Your task to perform on an android device: turn on notifications settings in the gmail app Image 0: 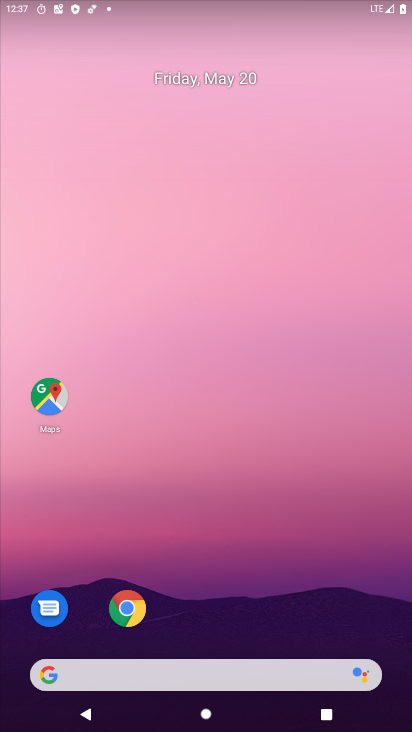
Step 0: drag from (375, 591) to (351, 158)
Your task to perform on an android device: turn on notifications settings in the gmail app Image 1: 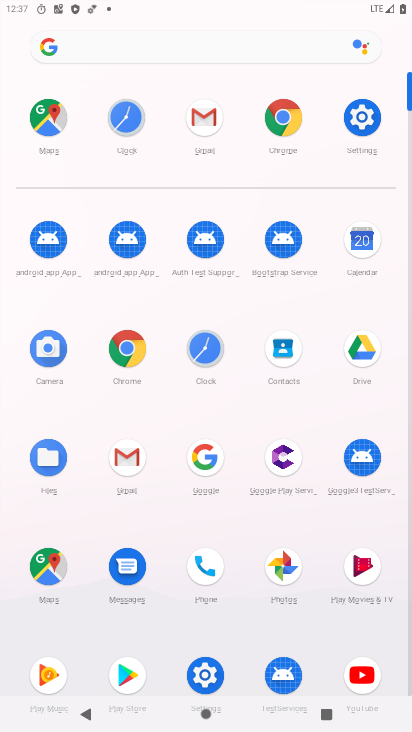
Step 1: click (141, 475)
Your task to perform on an android device: turn on notifications settings in the gmail app Image 2: 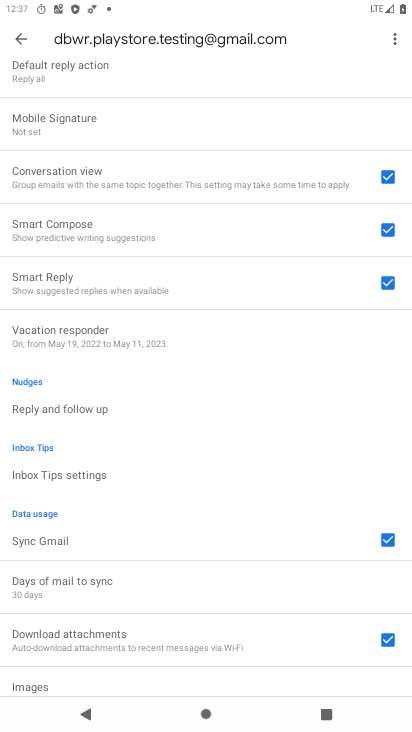
Step 2: task complete